Your task to perform on an android device: toggle show notifications on the lock screen Image 0: 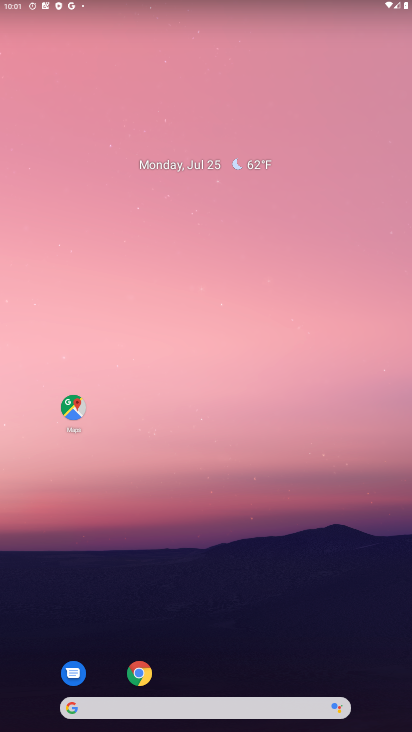
Step 0: click (161, 284)
Your task to perform on an android device: toggle show notifications on the lock screen Image 1: 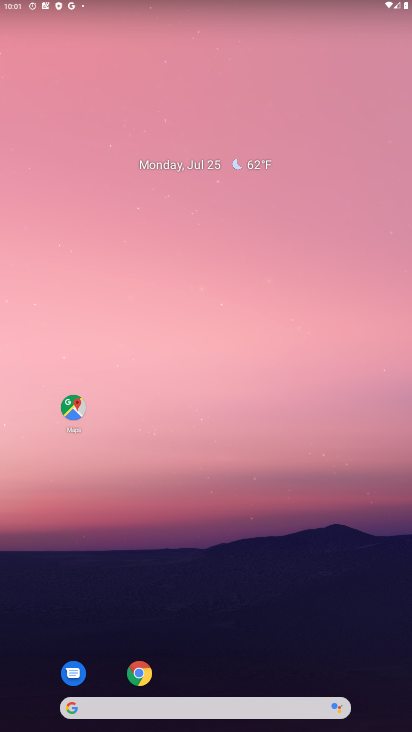
Step 1: click (262, 276)
Your task to perform on an android device: toggle show notifications on the lock screen Image 2: 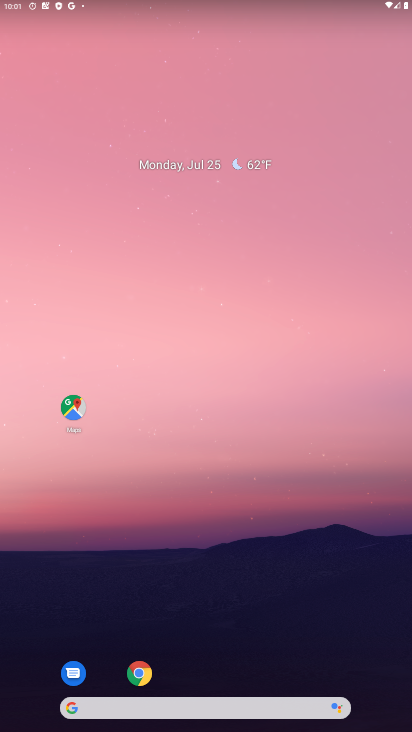
Step 2: drag from (177, 616) to (209, 227)
Your task to perform on an android device: toggle show notifications on the lock screen Image 3: 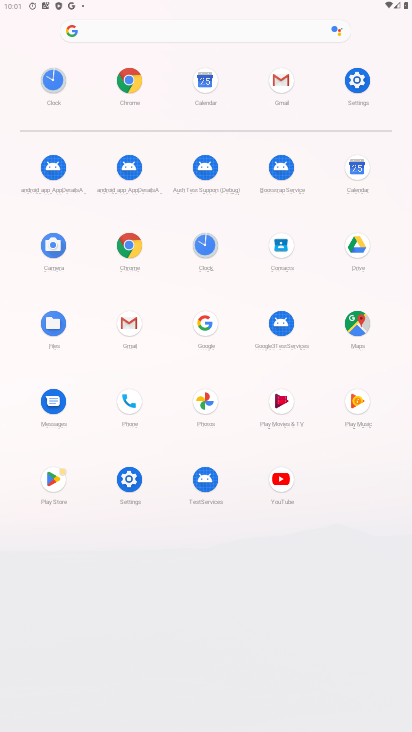
Step 3: click (363, 69)
Your task to perform on an android device: toggle show notifications on the lock screen Image 4: 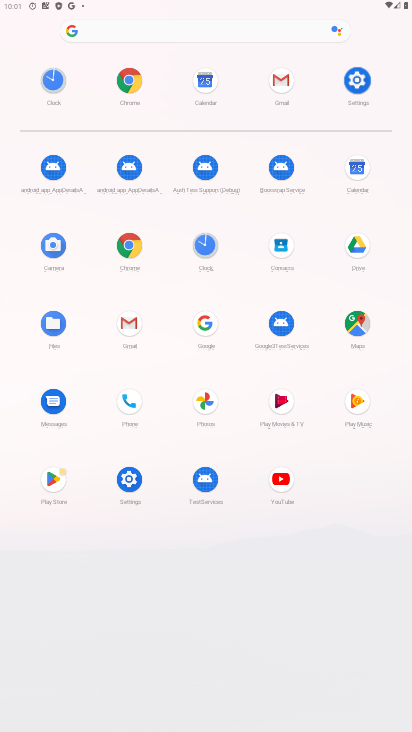
Step 4: click (363, 69)
Your task to perform on an android device: toggle show notifications on the lock screen Image 5: 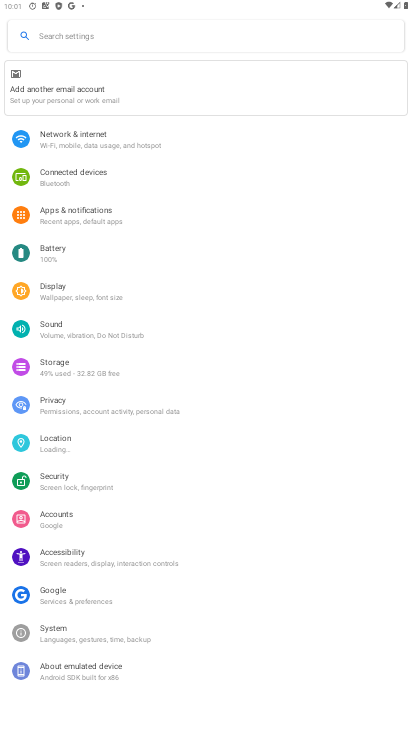
Step 5: drag from (160, 524) to (241, 219)
Your task to perform on an android device: toggle show notifications on the lock screen Image 6: 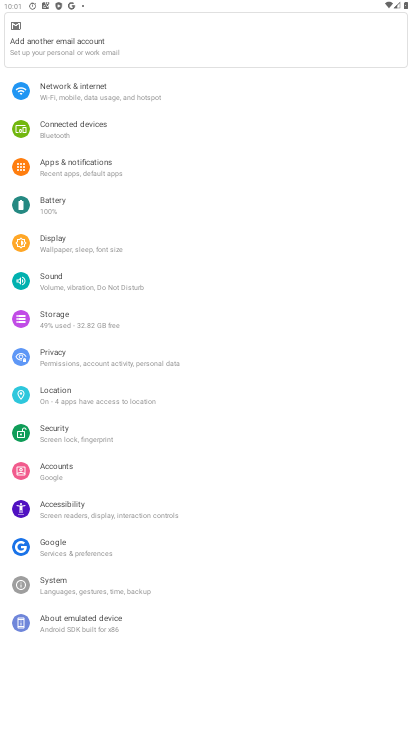
Step 6: click (80, 160)
Your task to perform on an android device: toggle show notifications on the lock screen Image 7: 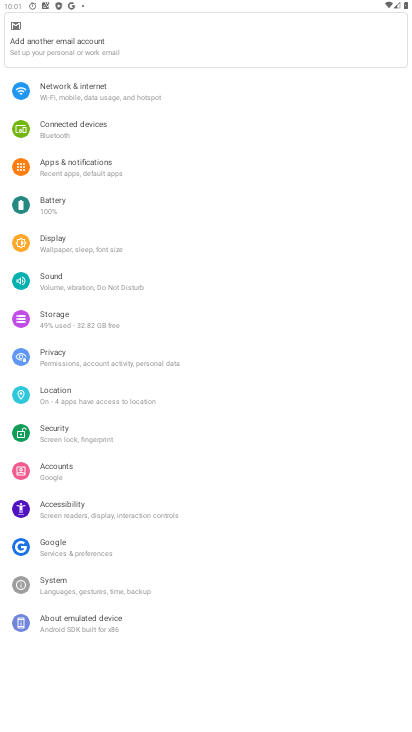
Step 7: click (80, 160)
Your task to perform on an android device: toggle show notifications on the lock screen Image 8: 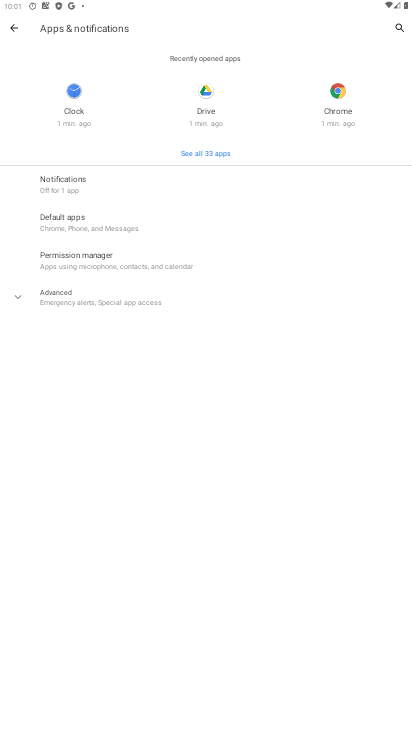
Step 8: click (68, 180)
Your task to perform on an android device: toggle show notifications on the lock screen Image 9: 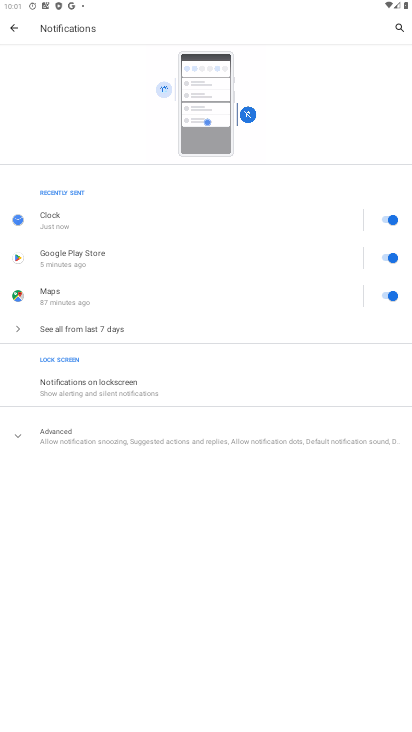
Step 9: drag from (113, 542) to (140, 324)
Your task to perform on an android device: toggle show notifications on the lock screen Image 10: 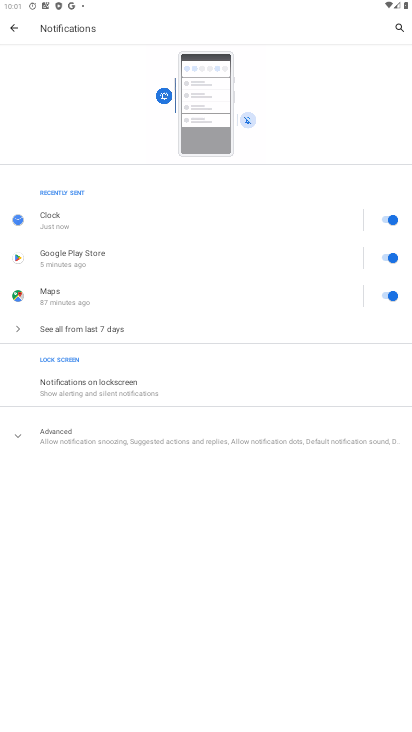
Step 10: click (94, 427)
Your task to perform on an android device: toggle show notifications on the lock screen Image 11: 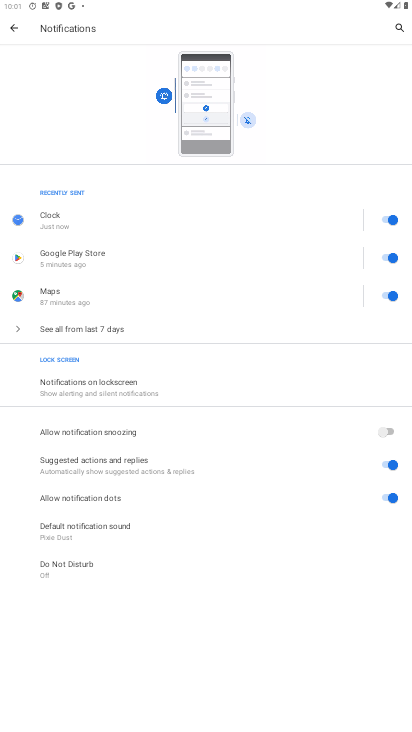
Step 11: drag from (258, 481) to (309, 297)
Your task to perform on an android device: toggle show notifications on the lock screen Image 12: 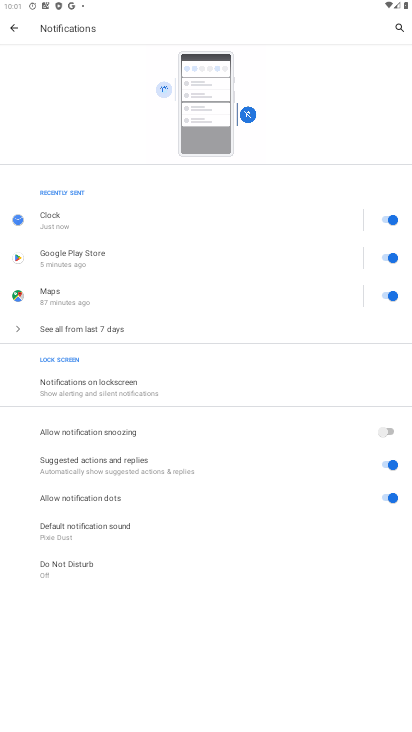
Step 12: click (108, 394)
Your task to perform on an android device: toggle show notifications on the lock screen Image 13: 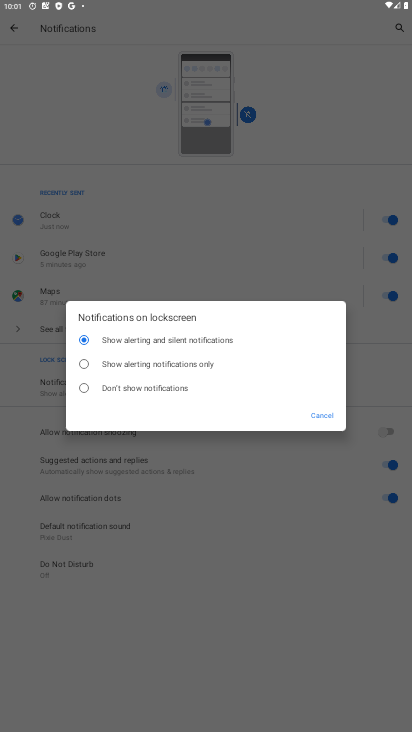
Step 13: click (114, 357)
Your task to perform on an android device: toggle show notifications on the lock screen Image 14: 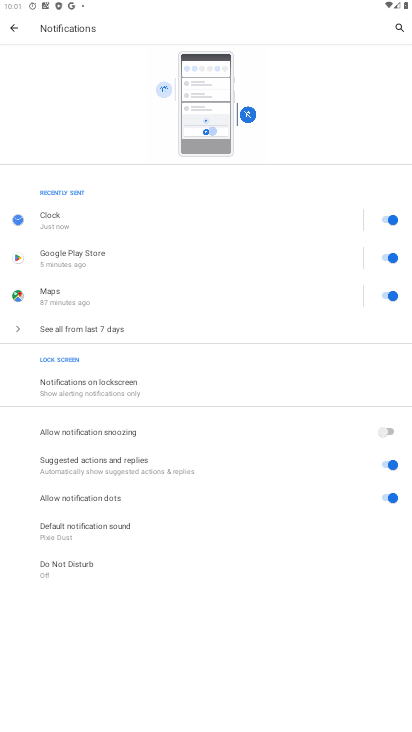
Step 14: task complete